Your task to perform on an android device: turn off notifications in google photos Image 0: 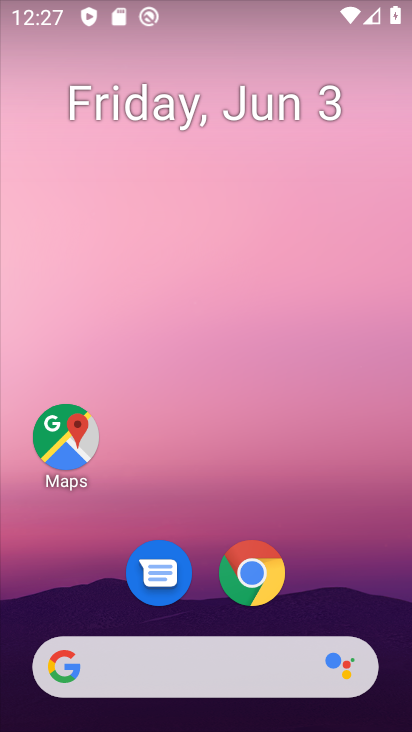
Step 0: task complete